Your task to perform on an android device: open app "Etsy: Buy & Sell Unique Items" (install if not already installed), go to login, and select forgot password Image 0: 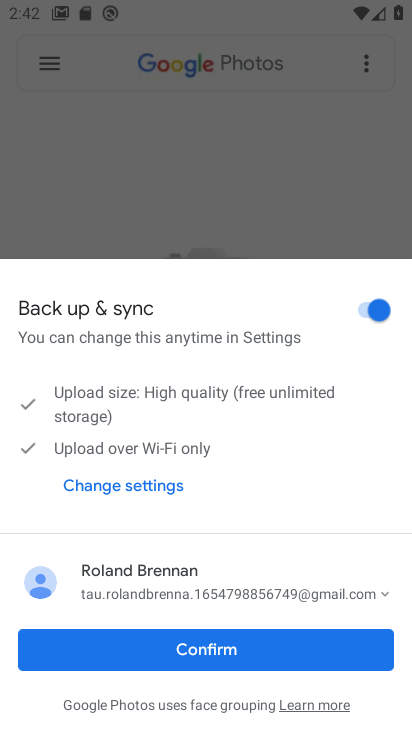
Step 0: press home button
Your task to perform on an android device: open app "Etsy: Buy & Sell Unique Items" (install if not already installed), go to login, and select forgot password Image 1: 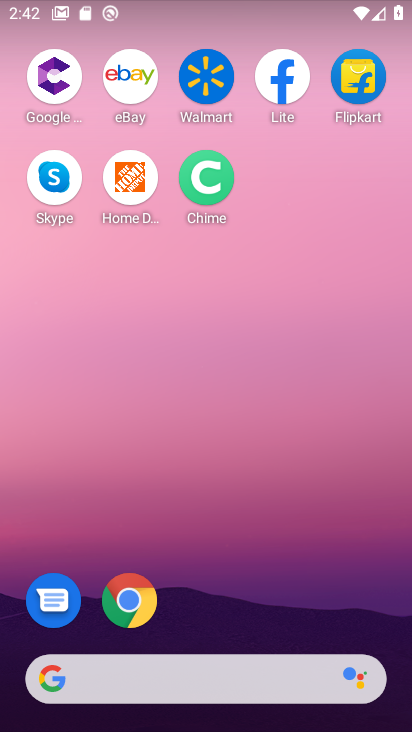
Step 1: drag from (228, 641) to (278, 122)
Your task to perform on an android device: open app "Etsy: Buy & Sell Unique Items" (install if not already installed), go to login, and select forgot password Image 2: 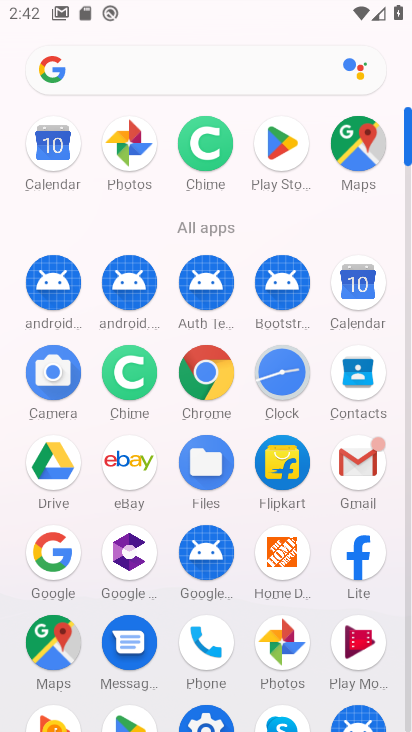
Step 2: click (289, 145)
Your task to perform on an android device: open app "Etsy: Buy & Sell Unique Items" (install if not already installed), go to login, and select forgot password Image 3: 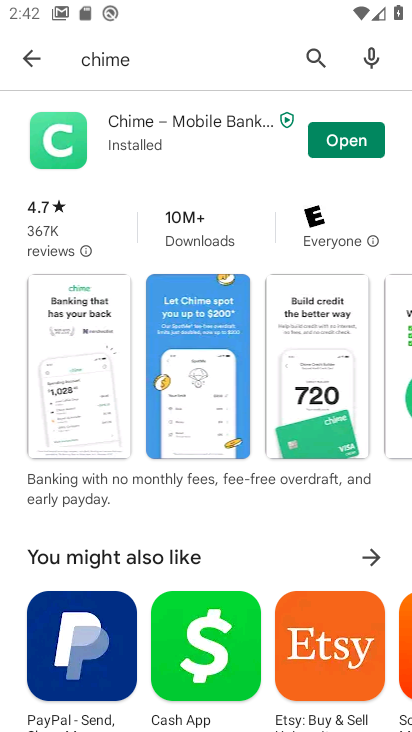
Step 3: click (306, 45)
Your task to perform on an android device: open app "Etsy: Buy & Sell Unique Items" (install if not already installed), go to login, and select forgot password Image 4: 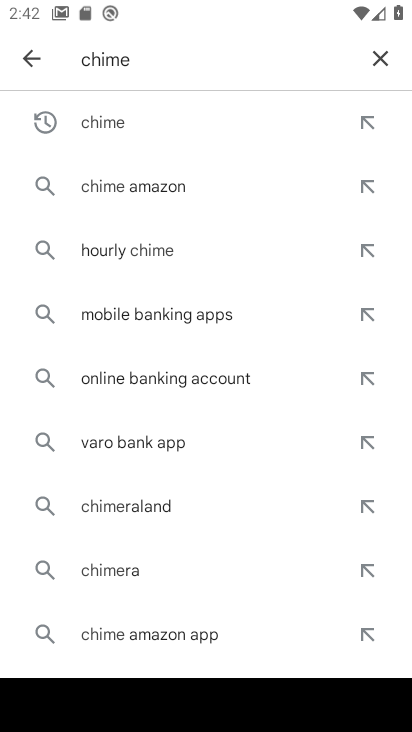
Step 4: click (358, 53)
Your task to perform on an android device: open app "Etsy: Buy & Sell Unique Items" (install if not already installed), go to login, and select forgot password Image 5: 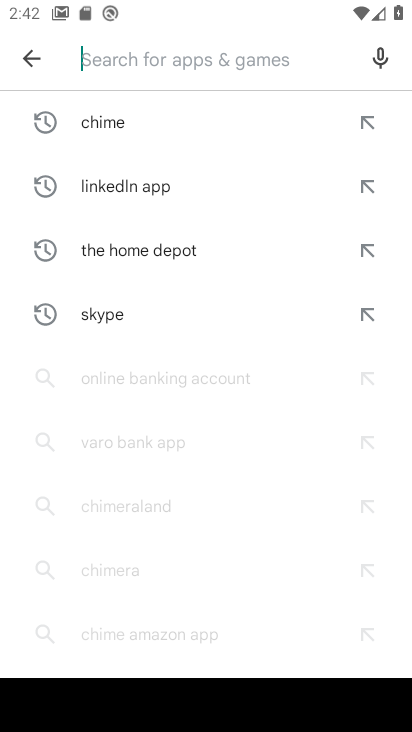
Step 5: click (366, 53)
Your task to perform on an android device: open app "Etsy: Buy & Sell Unique Items" (install if not already installed), go to login, and select forgot password Image 6: 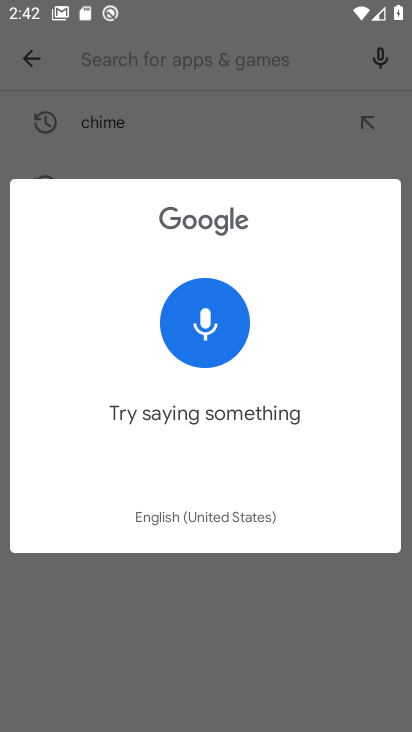
Step 6: click (234, 103)
Your task to perform on an android device: open app "Etsy: Buy & Sell Unique Items" (install if not already installed), go to login, and select forgot password Image 7: 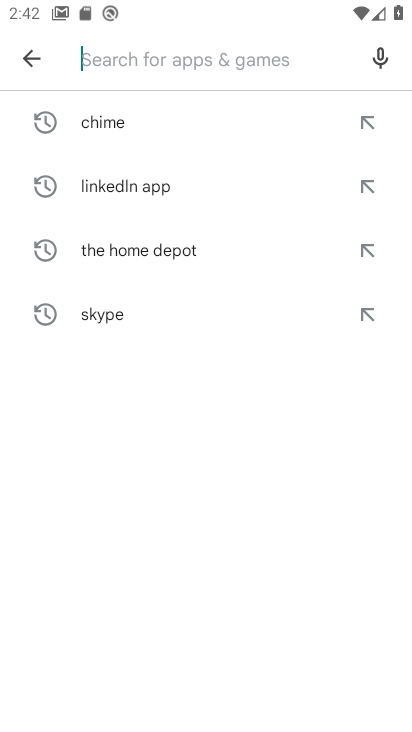
Step 7: click (148, 57)
Your task to perform on an android device: open app "Etsy: Buy & Sell Unique Items" (install if not already installed), go to login, and select forgot password Image 8: 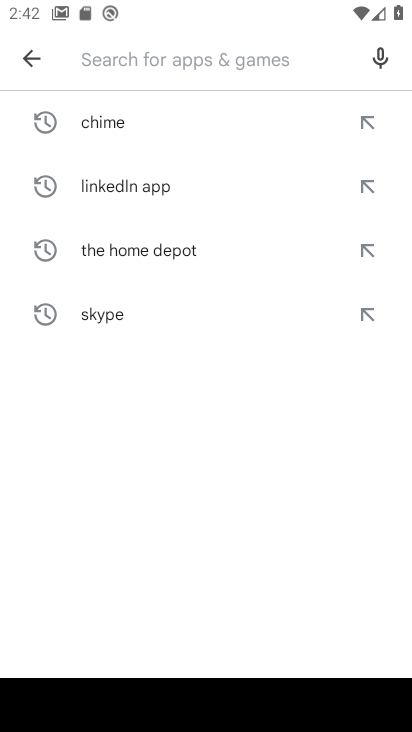
Step 8: type "etsy"
Your task to perform on an android device: open app "Etsy: Buy & Sell Unique Items" (install if not already installed), go to login, and select forgot password Image 9: 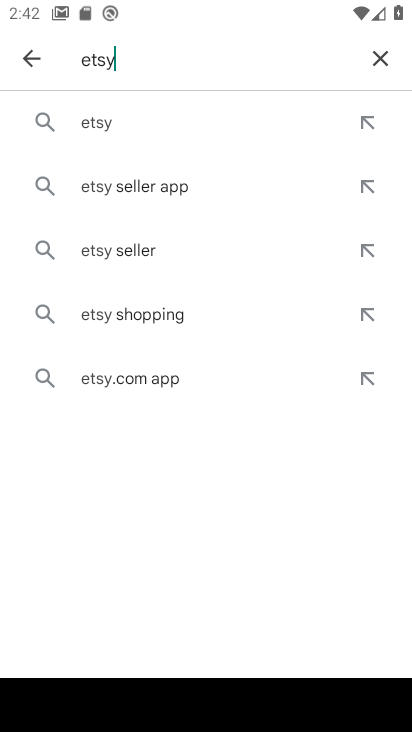
Step 9: click (120, 110)
Your task to perform on an android device: open app "Etsy: Buy & Sell Unique Items" (install if not already installed), go to login, and select forgot password Image 10: 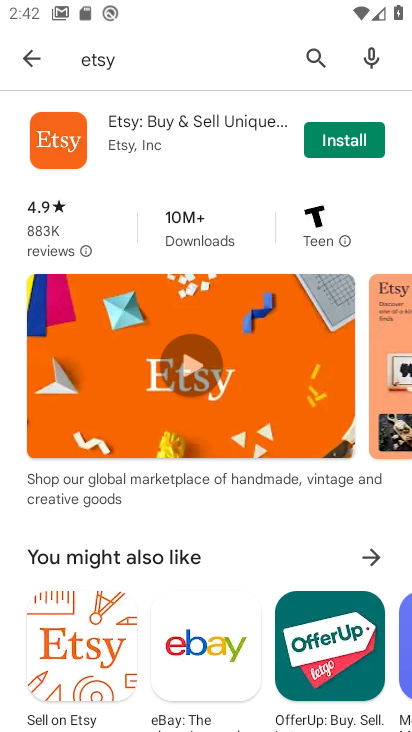
Step 10: click (343, 148)
Your task to perform on an android device: open app "Etsy: Buy & Sell Unique Items" (install if not already installed), go to login, and select forgot password Image 11: 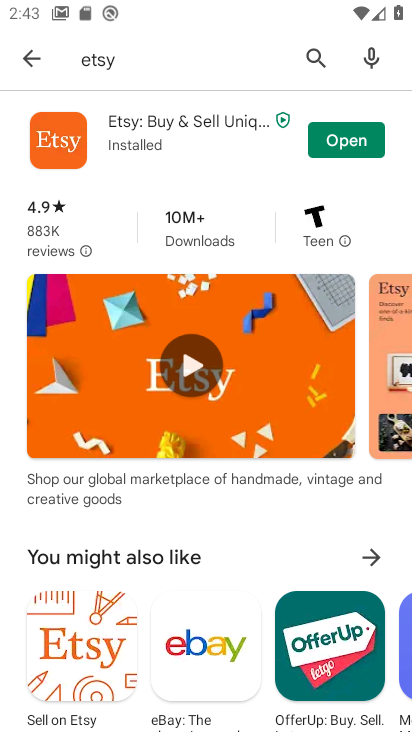
Step 11: click (353, 144)
Your task to perform on an android device: open app "Etsy: Buy & Sell Unique Items" (install if not already installed), go to login, and select forgot password Image 12: 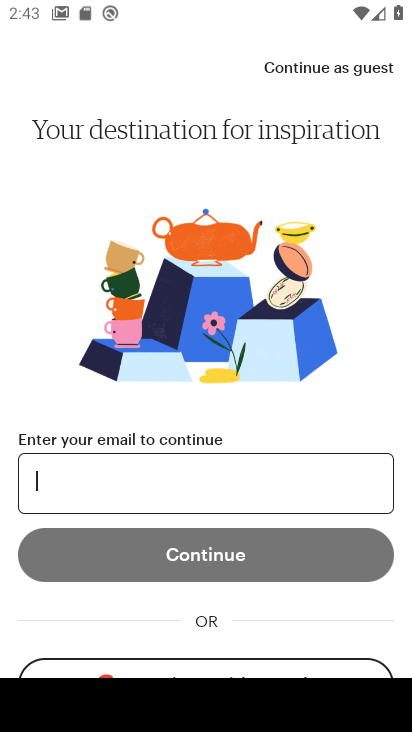
Step 12: task complete